Your task to perform on an android device: set default search engine in the chrome app Image 0: 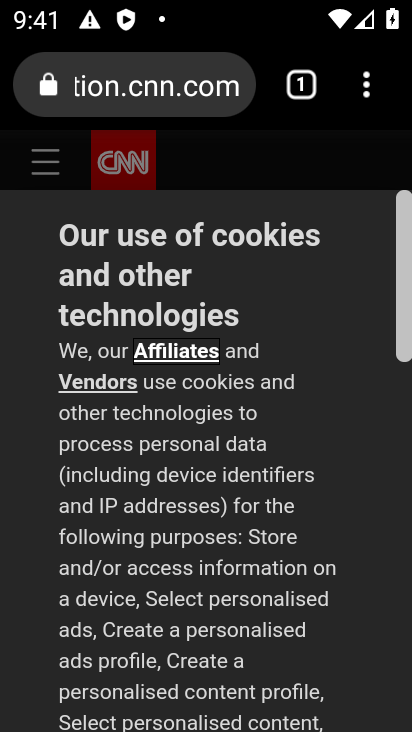
Step 0: press home button
Your task to perform on an android device: set default search engine in the chrome app Image 1: 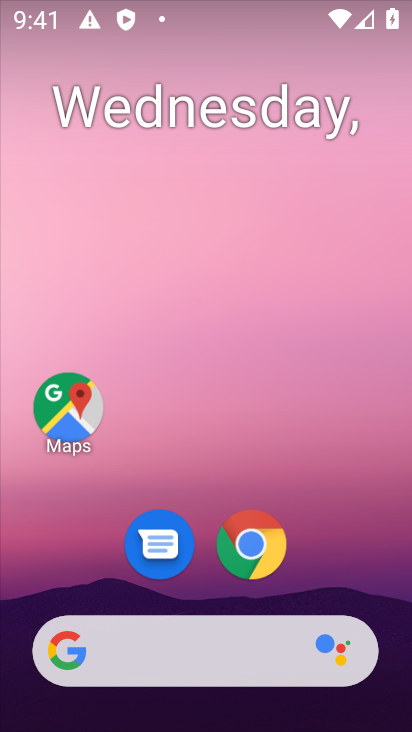
Step 1: click (266, 549)
Your task to perform on an android device: set default search engine in the chrome app Image 2: 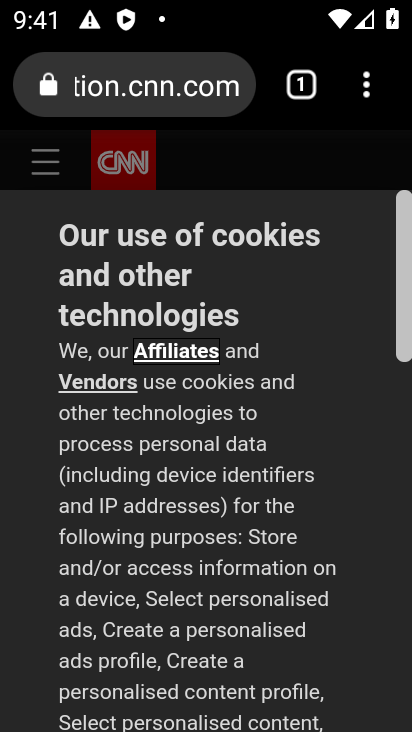
Step 2: task complete